Your task to perform on an android device: Show me productivity apps on the Play Store Image 0: 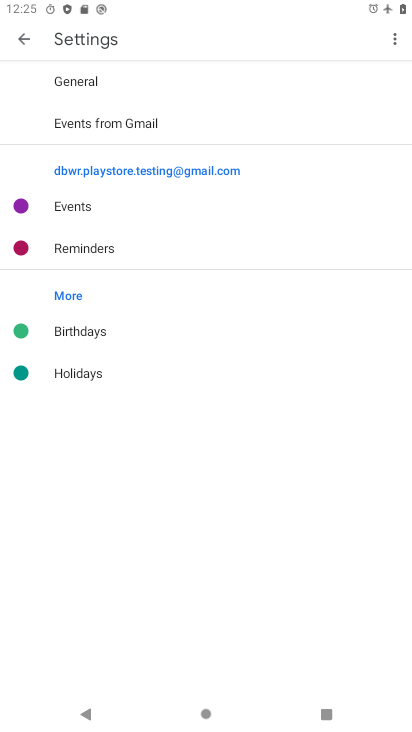
Step 0: press back button
Your task to perform on an android device: Show me productivity apps on the Play Store Image 1: 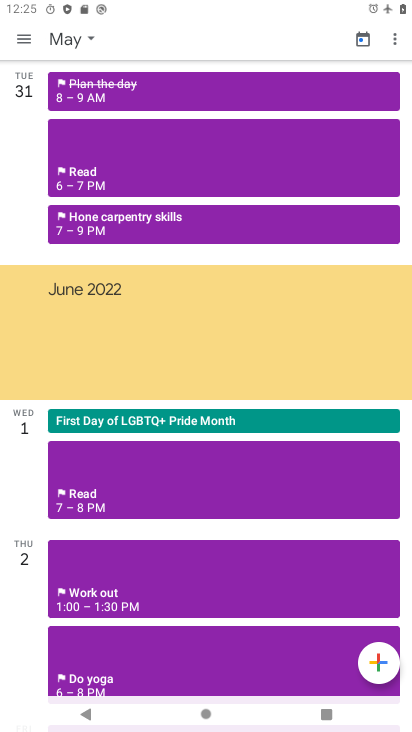
Step 1: press home button
Your task to perform on an android device: Show me productivity apps on the Play Store Image 2: 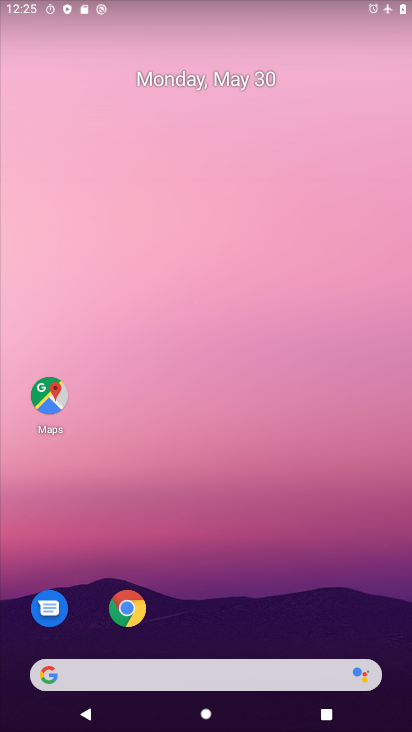
Step 2: drag from (208, 633) to (250, 24)
Your task to perform on an android device: Show me productivity apps on the Play Store Image 3: 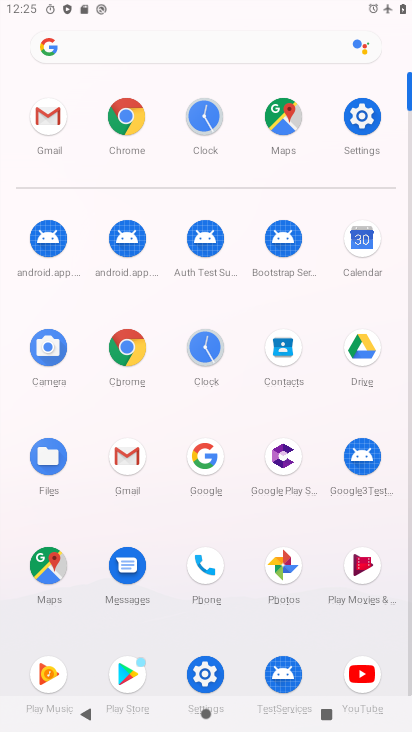
Step 3: click (134, 678)
Your task to perform on an android device: Show me productivity apps on the Play Store Image 4: 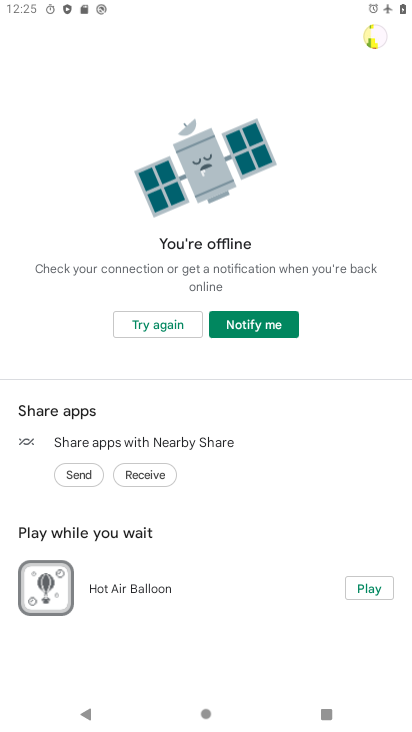
Step 4: click (184, 337)
Your task to perform on an android device: Show me productivity apps on the Play Store Image 5: 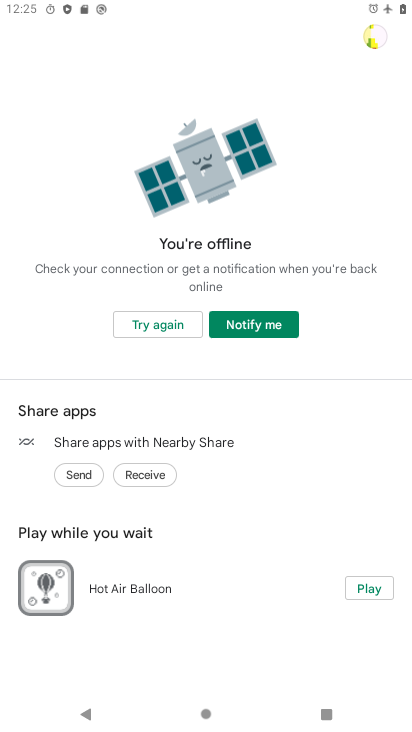
Step 5: task complete